Your task to perform on an android device: Open the map Image 0: 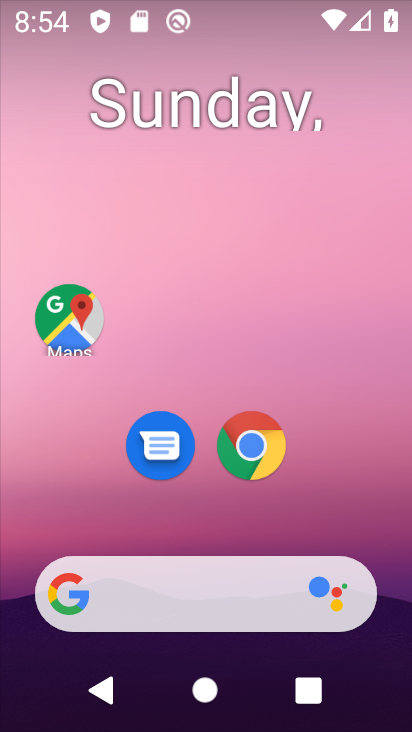
Step 0: click (65, 310)
Your task to perform on an android device: Open the map Image 1: 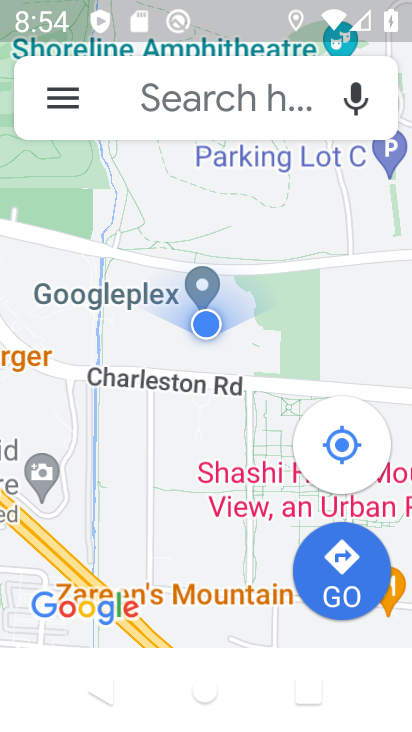
Step 1: task complete